Your task to perform on an android device: change the clock display to analog Image 0: 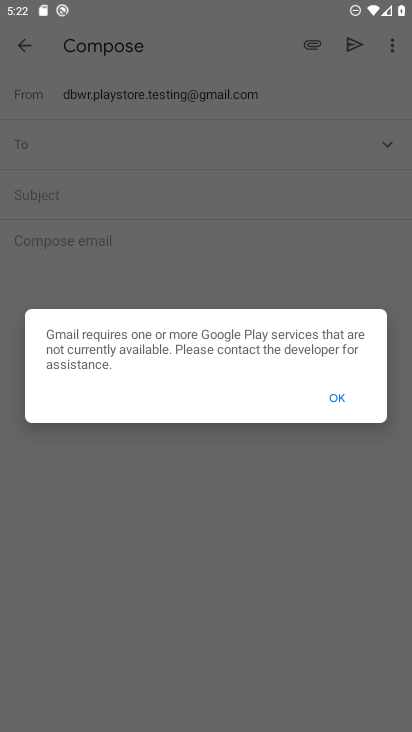
Step 0: press home button
Your task to perform on an android device: change the clock display to analog Image 1: 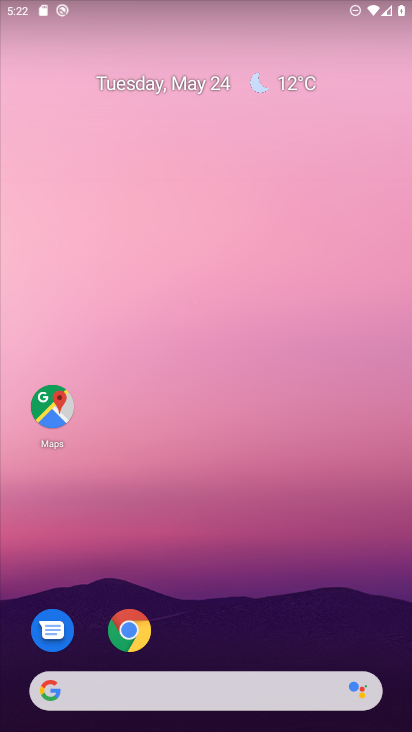
Step 1: drag from (213, 665) to (220, 67)
Your task to perform on an android device: change the clock display to analog Image 2: 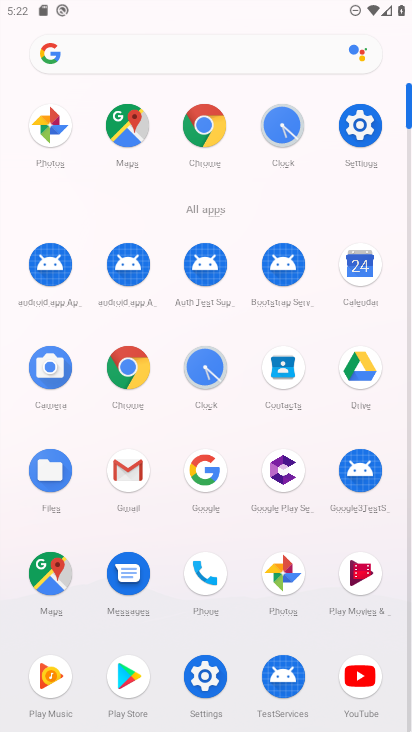
Step 2: click (196, 380)
Your task to perform on an android device: change the clock display to analog Image 3: 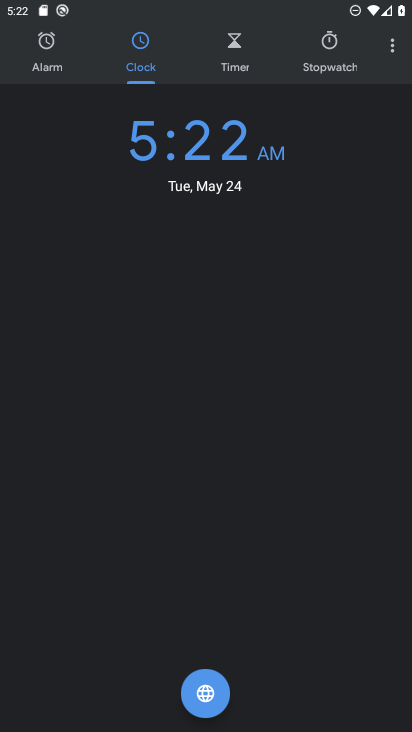
Step 3: click (387, 45)
Your task to perform on an android device: change the clock display to analog Image 4: 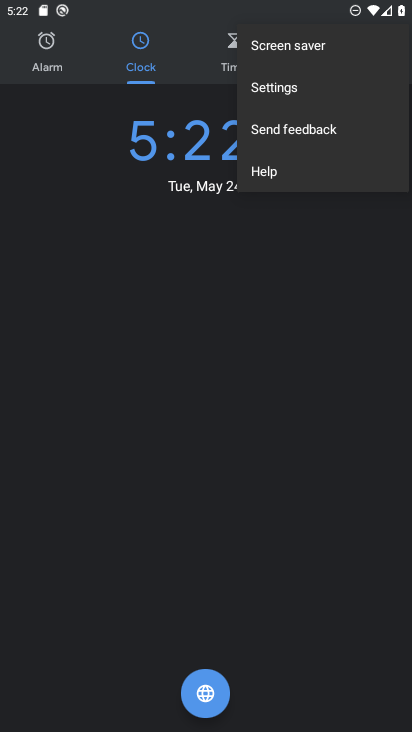
Step 4: click (287, 87)
Your task to perform on an android device: change the clock display to analog Image 5: 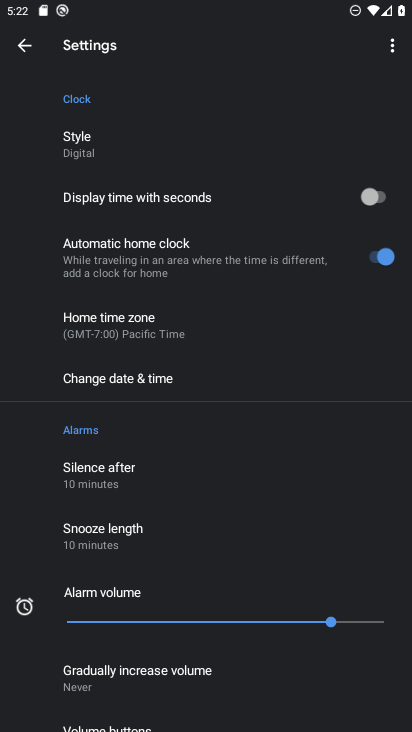
Step 5: click (94, 141)
Your task to perform on an android device: change the clock display to analog Image 6: 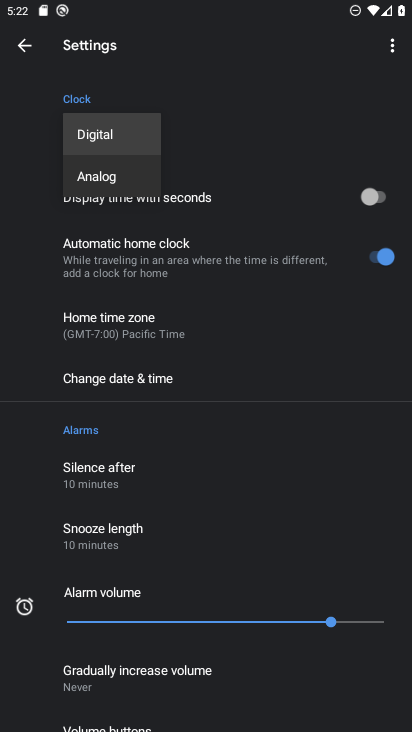
Step 6: click (116, 192)
Your task to perform on an android device: change the clock display to analog Image 7: 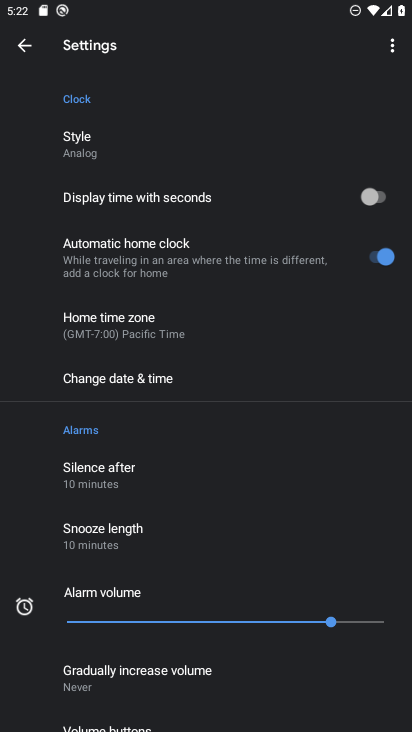
Step 7: task complete